Your task to perform on an android device: Go to settings Image 0: 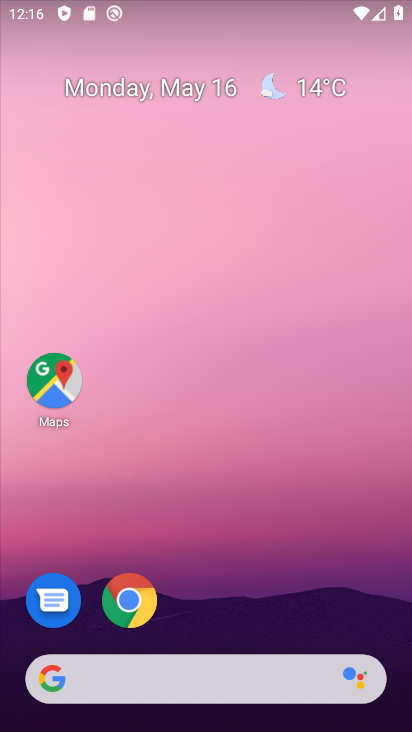
Step 0: click (239, 112)
Your task to perform on an android device: Go to settings Image 1: 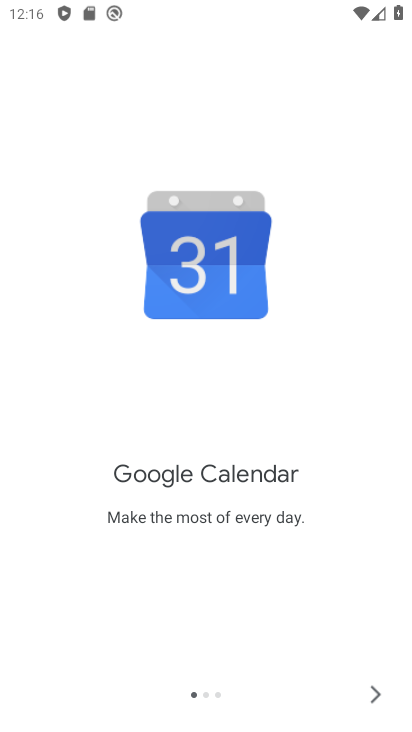
Step 1: drag from (262, 590) to (278, 156)
Your task to perform on an android device: Go to settings Image 2: 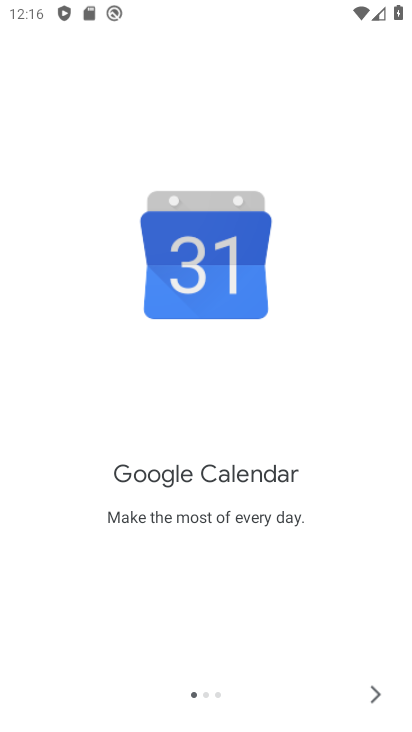
Step 2: press home button
Your task to perform on an android device: Go to settings Image 3: 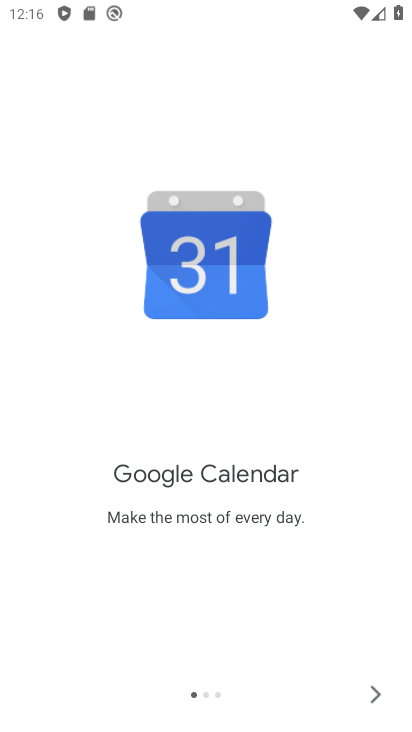
Step 3: press home button
Your task to perform on an android device: Go to settings Image 4: 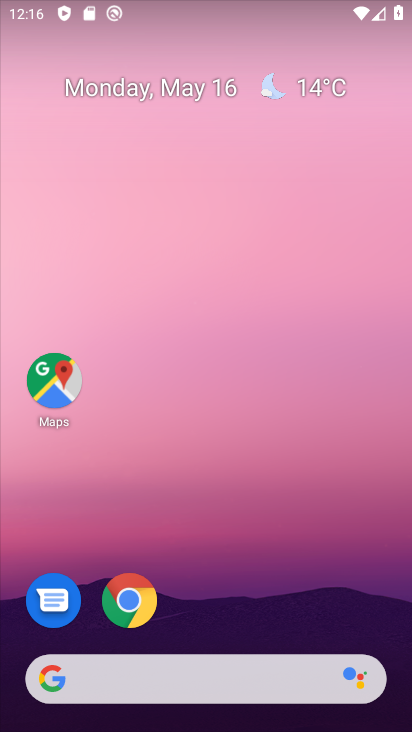
Step 4: drag from (279, 505) to (281, 24)
Your task to perform on an android device: Go to settings Image 5: 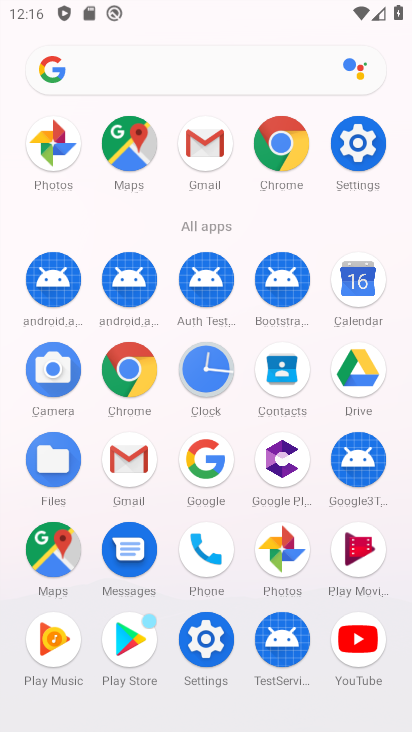
Step 5: click (210, 629)
Your task to perform on an android device: Go to settings Image 6: 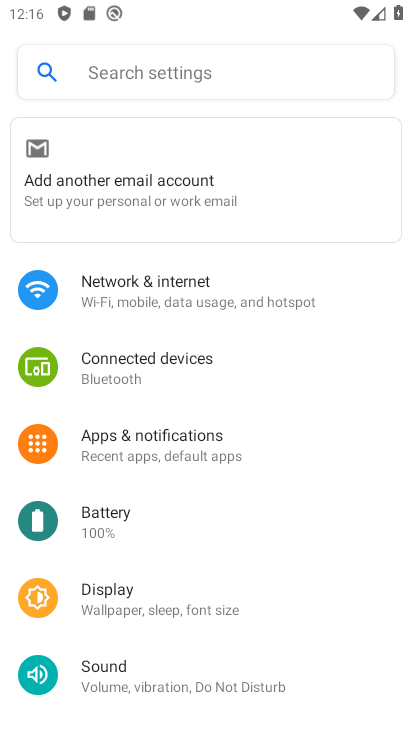
Step 6: task complete